Your task to perform on an android device: allow notifications from all sites in the chrome app Image 0: 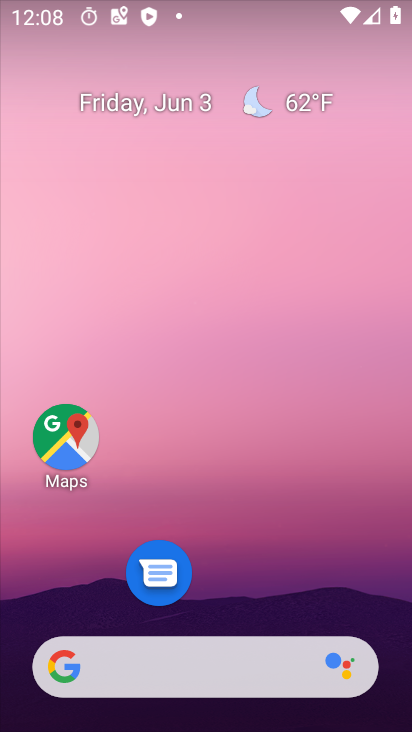
Step 0: drag from (345, 663) to (367, 6)
Your task to perform on an android device: allow notifications from all sites in the chrome app Image 1: 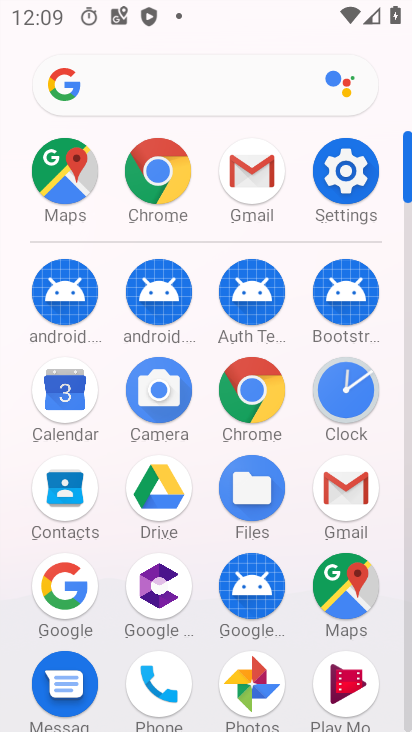
Step 1: click (246, 414)
Your task to perform on an android device: allow notifications from all sites in the chrome app Image 2: 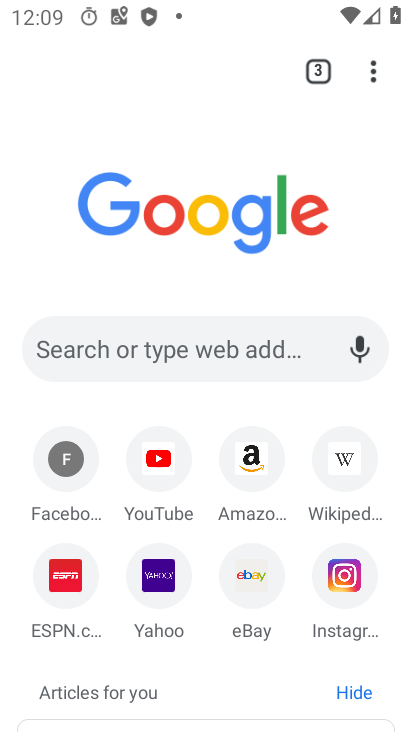
Step 2: drag from (369, 76) to (135, 625)
Your task to perform on an android device: allow notifications from all sites in the chrome app Image 3: 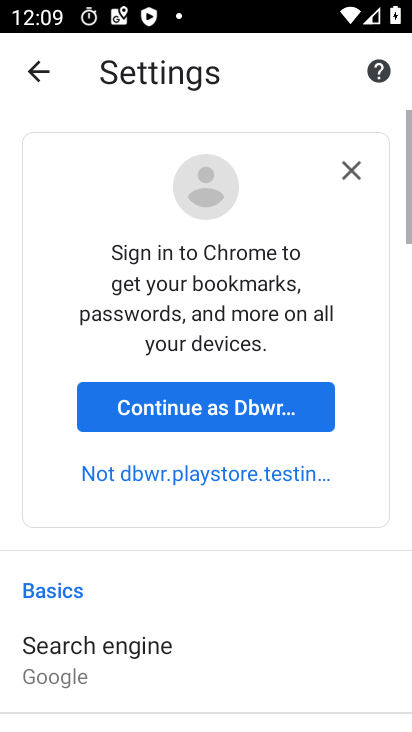
Step 3: drag from (225, 608) to (256, 154)
Your task to perform on an android device: allow notifications from all sites in the chrome app Image 4: 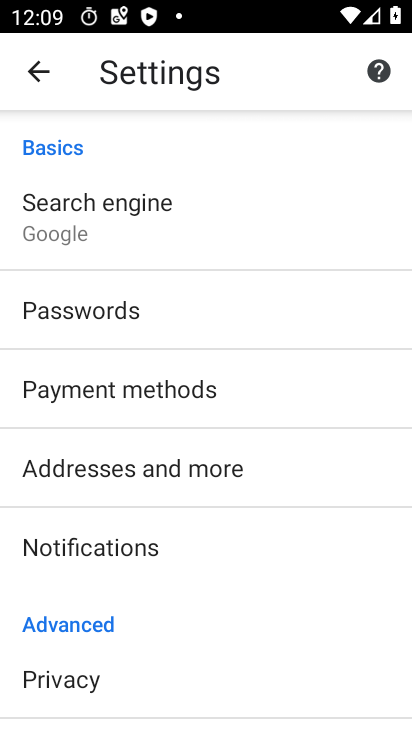
Step 4: click (233, 554)
Your task to perform on an android device: allow notifications from all sites in the chrome app Image 5: 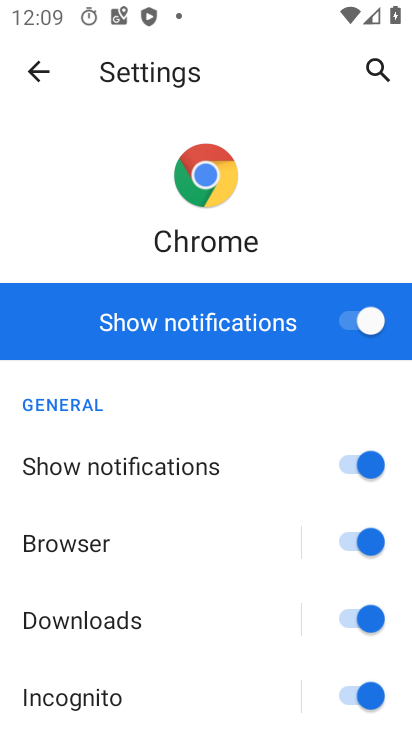
Step 5: task complete